Your task to perform on an android device: check the backup settings in the google photos Image 0: 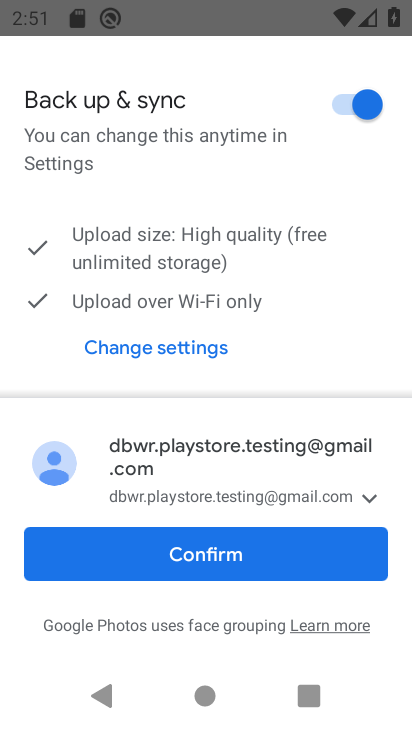
Step 0: click (267, 549)
Your task to perform on an android device: check the backup settings in the google photos Image 1: 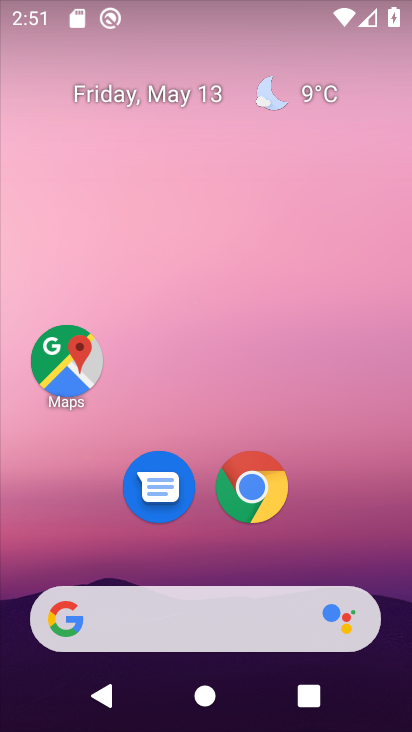
Step 1: drag from (198, 624) to (178, 235)
Your task to perform on an android device: check the backup settings in the google photos Image 2: 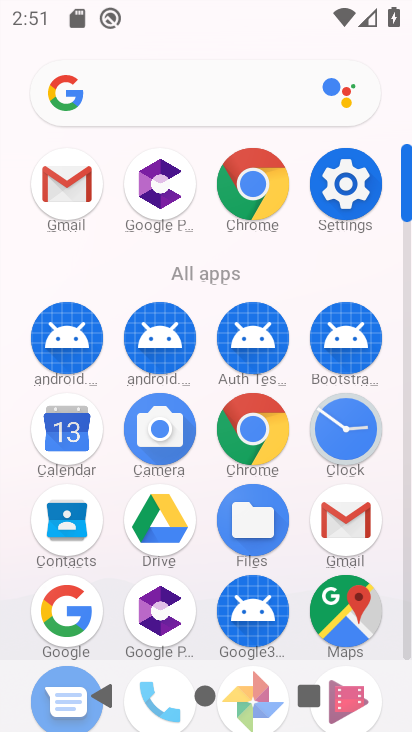
Step 2: drag from (152, 589) to (161, 351)
Your task to perform on an android device: check the backup settings in the google photos Image 3: 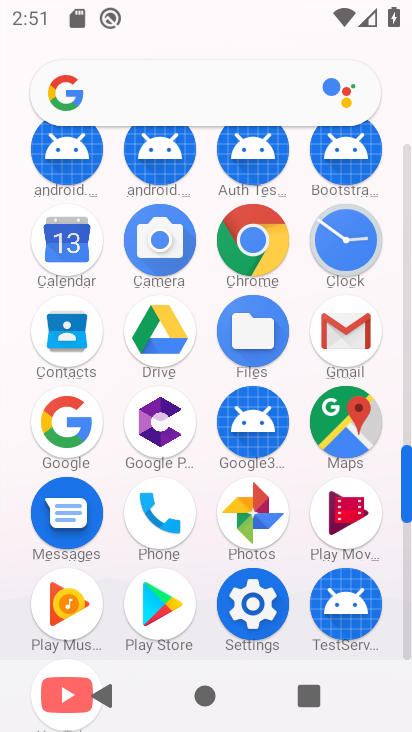
Step 3: click (258, 521)
Your task to perform on an android device: check the backup settings in the google photos Image 4: 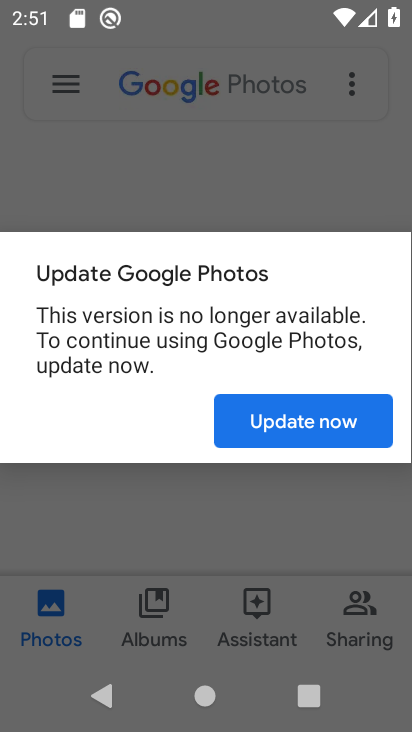
Step 4: click (267, 427)
Your task to perform on an android device: check the backup settings in the google photos Image 5: 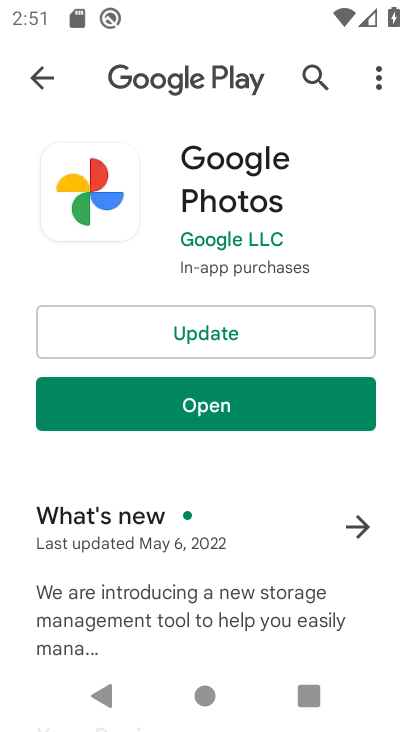
Step 5: click (213, 325)
Your task to perform on an android device: check the backup settings in the google photos Image 6: 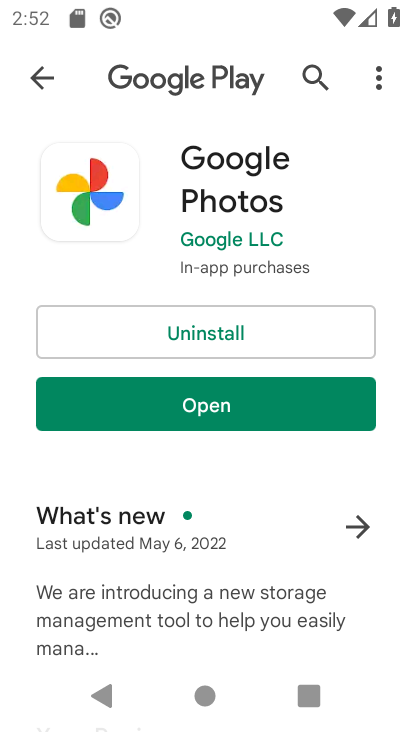
Step 6: click (208, 393)
Your task to perform on an android device: check the backup settings in the google photos Image 7: 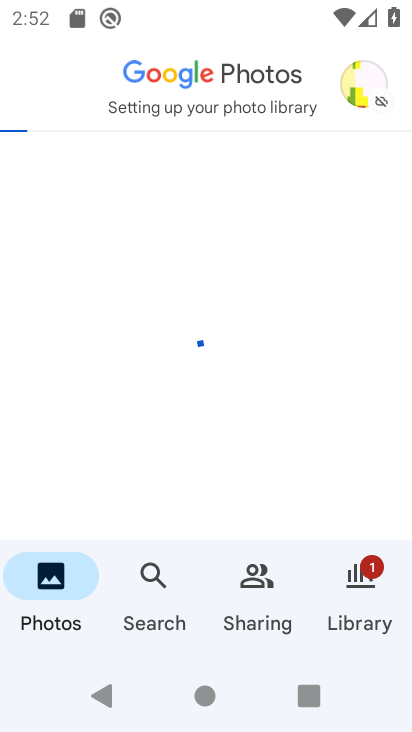
Step 7: click (352, 92)
Your task to perform on an android device: check the backup settings in the google photos Image 8: 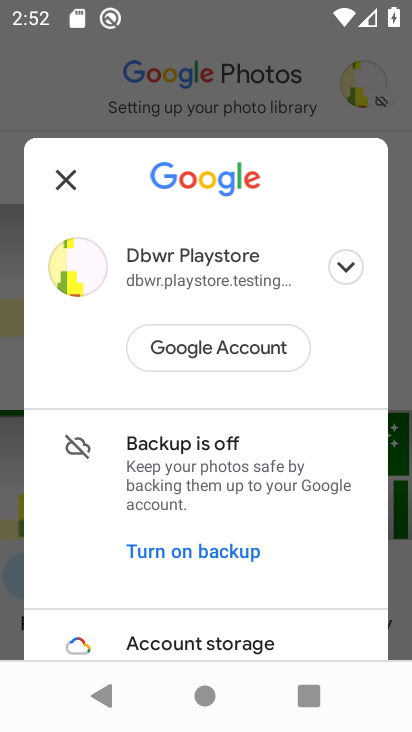
Step 8: drag from (152, 558) to (158, 191)
Your task to perform on an android device: check the backup settings in the google photos Image 9: 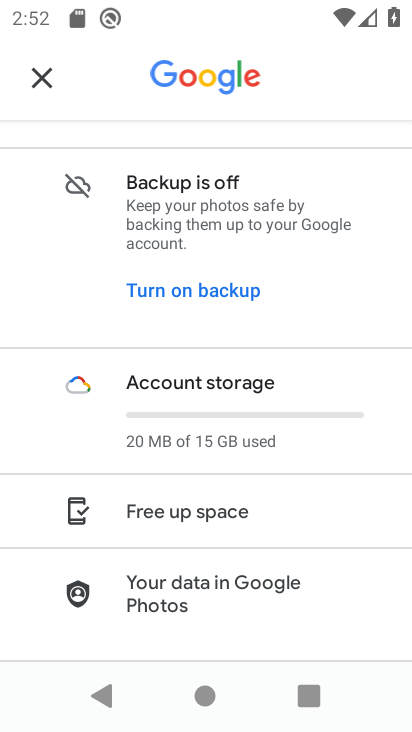
Step 9: drag from (156, 566) to (173, 198)
Your task to perform on an android device: check the backup settings in the google photos Image 10: 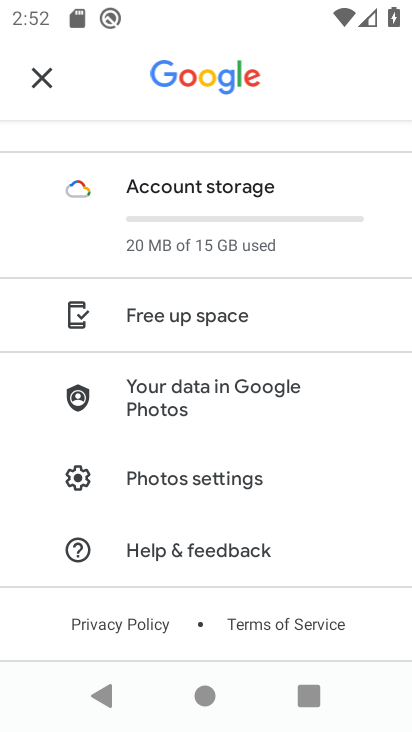
Step 10: click (166, 496)
Your task to perform on an android device: check the backup settings in the google photos Image 11: 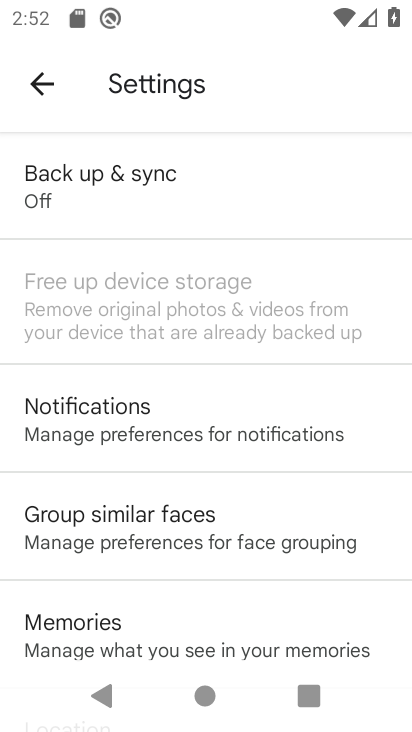
Step 11: click (156, 209)
Your task to perform on an android device: check the backup settings in the google photos Image 12: 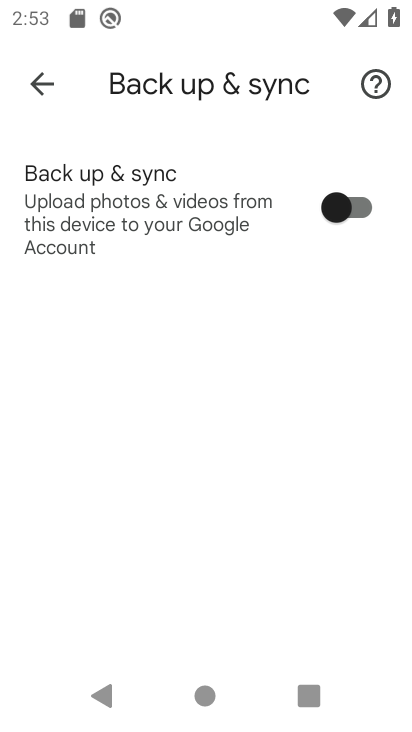
Step 12: task complete